Your task to perform on an android device: turn pop-ups on in chrome Image 0: 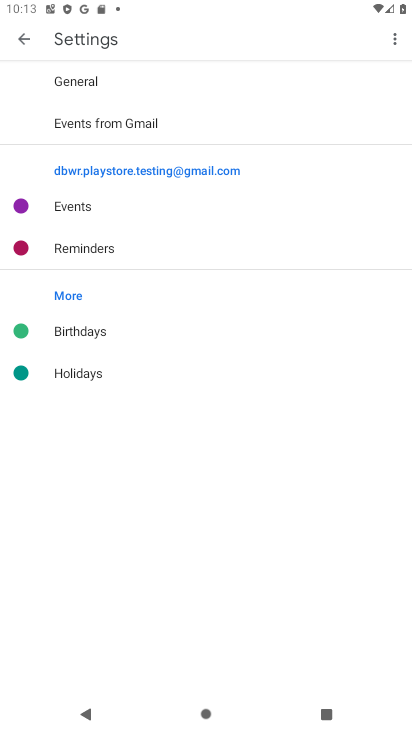
Step 0: press home button
Your task to perform on an android device: turn pop-ups on in chrome Image 1: 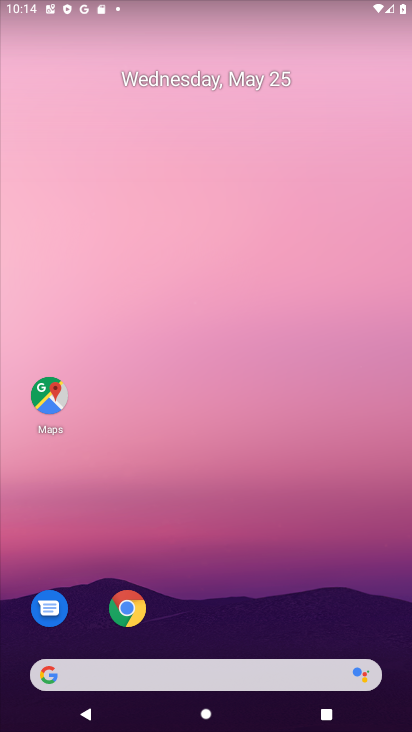
Step 1: drag from (252, 657) to (285, 668)
Your task to perform on an android device: turn pop-ups on in chrome Image 2: 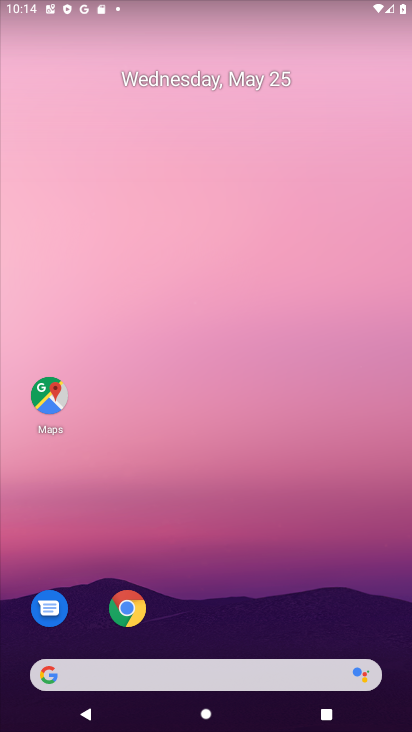
Step 2: click (133, 616)
Your task to perform on an android device: turn pop-ups on in chrome Image 3: 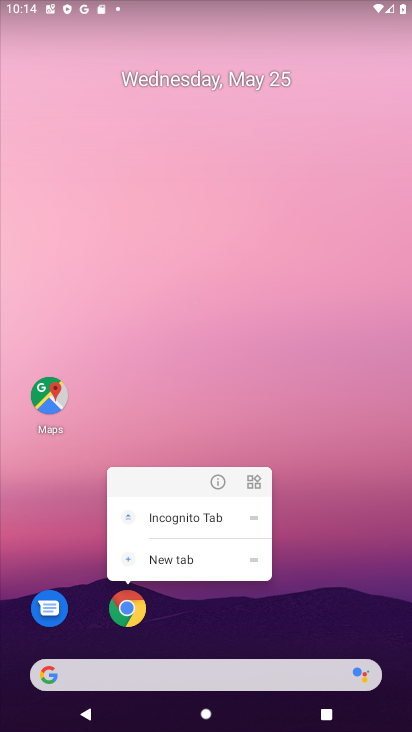
Step 3: click (126, 617)
Your task to perform on an android device: turn pop-ups on in chrome Image 4: 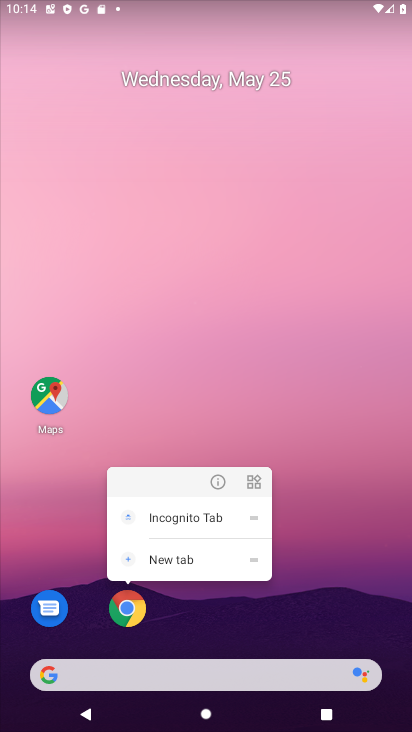
Step 4: click (126, 617)
Your task to perform on an android device: turn pop-ups on in chrome Image 5: 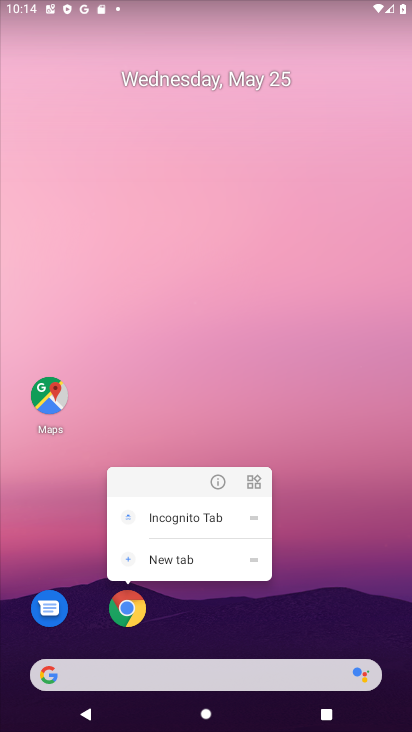
Step 5: click (131, 606)
Your task to perform on an android device: turn pop-ups on in chrome Image 6: 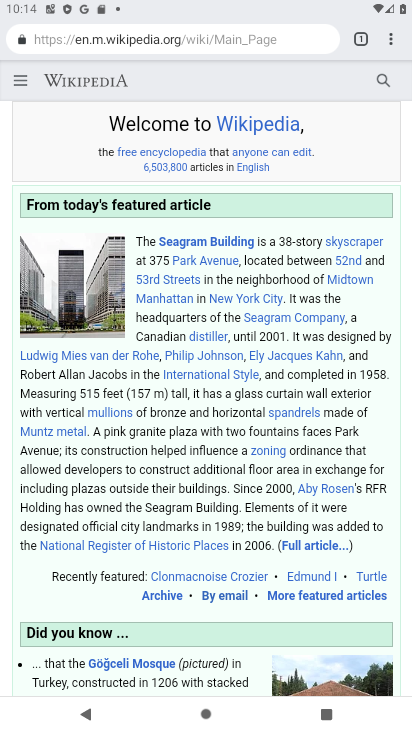
Step 6: click (392, 42)
Your task to perform on an android device: turn pop-ups on in chrome Image 7: 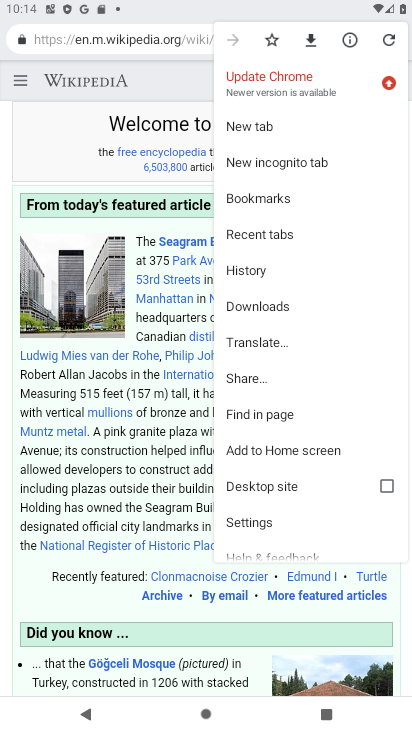
Step 7: click (277, 523)
Your task to perform on an android device: turn pop-ups on in chrome Image 8: 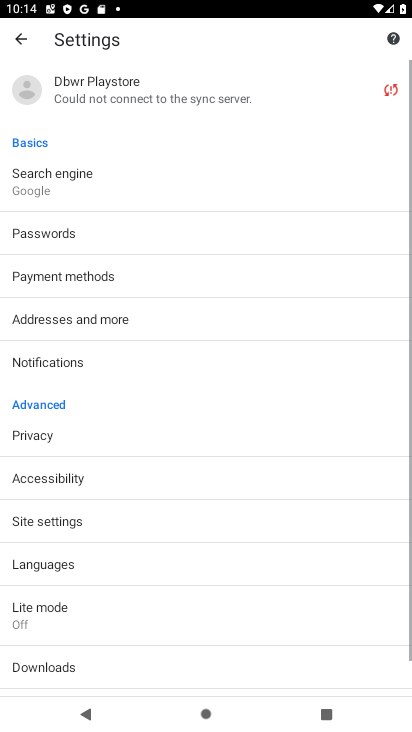
Step 8: drag from (157, 610) to (164, 384)
Your task to perform on an android device: turn pop-ups on in chrome Image 9: 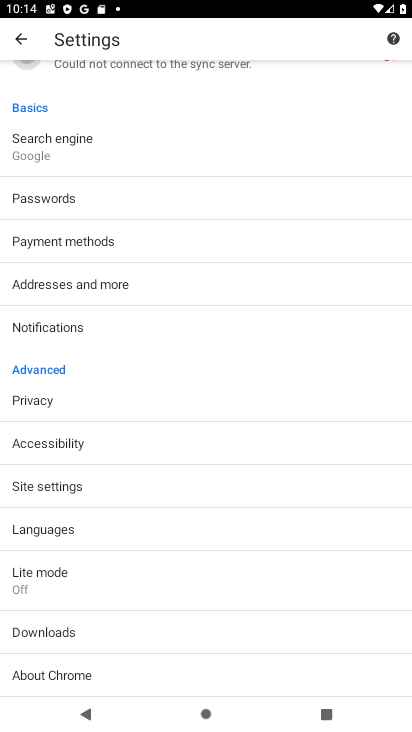
Step 9: click (25, 487)
Your task to perform on an android device: turn pop-ups on in chrome Image 10: 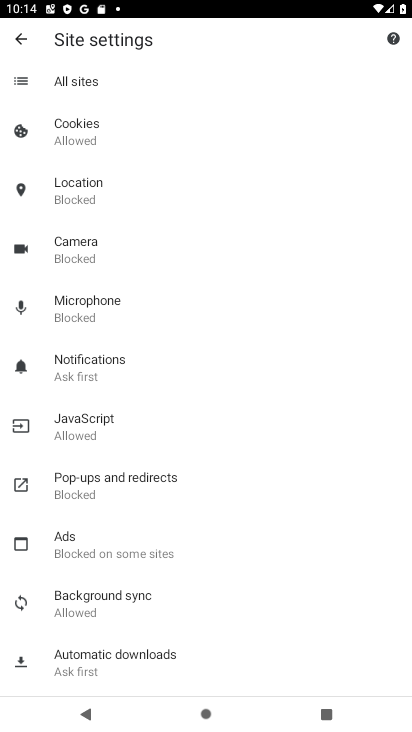
Step 10: click (87, 486)
Your task to perform on an android device: turn pop-ups on in chrome Image 11: 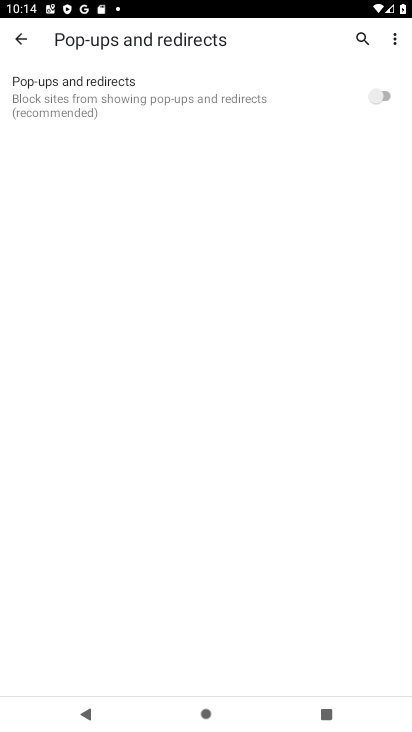
Step 11: click (374, 95)
Your task to perform on an android device: turn pop-ups on in chrome Image 12: 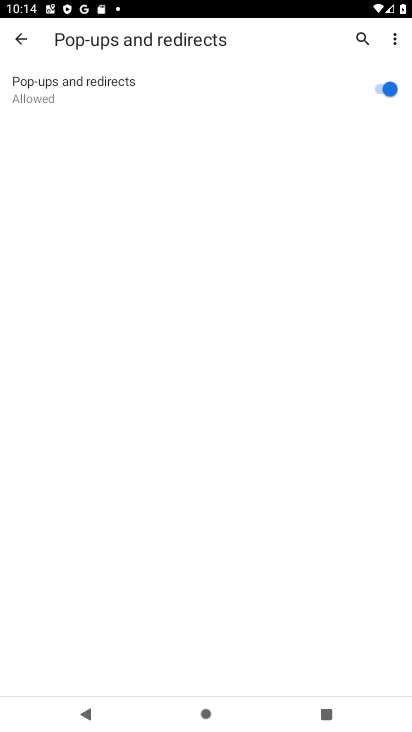
Step 12: task complete